Your task to perform on an android device: see creations saved in the google photos Image 0: 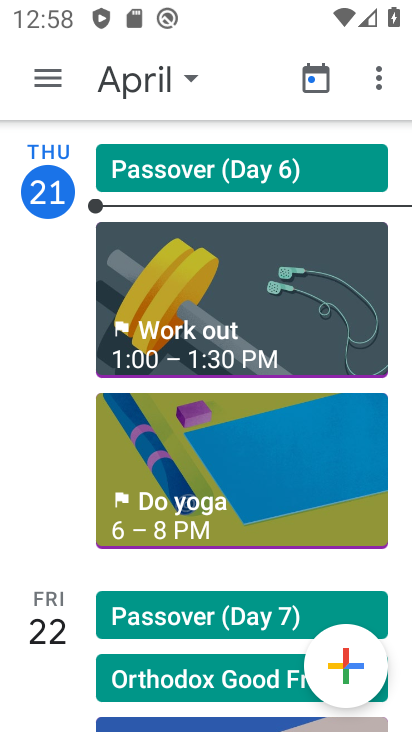
Step 0: press home button
Your task to perform on an android device: see creations saved in the google photos Image 1: 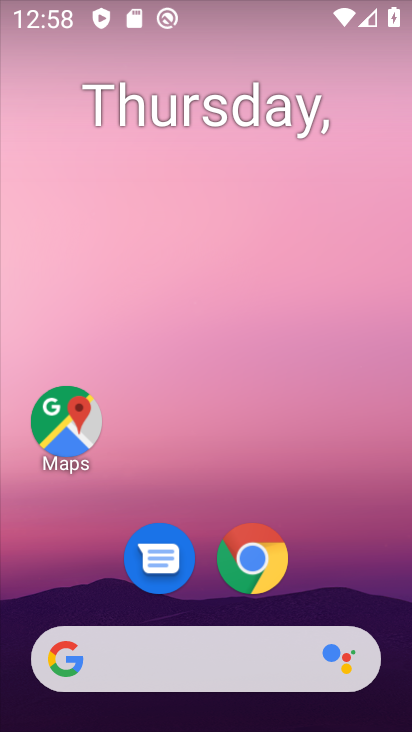
Step 1: drag from (356, 536) to (312, 218)
Your task to perform on an android device: see creations saved in the google photos Image 2: 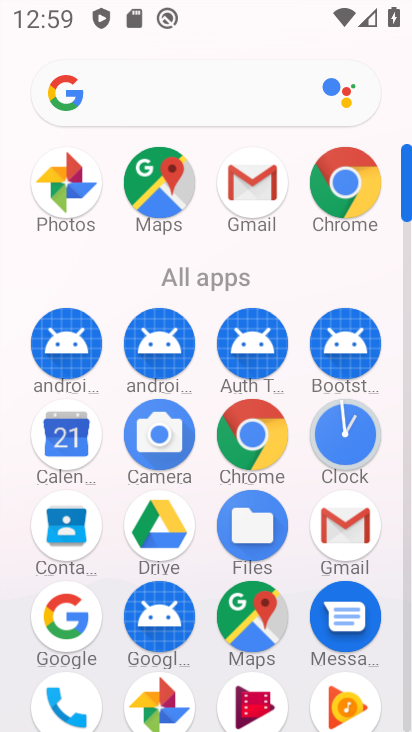
Step 2: click (164, 684)
Your task to perform on an android device: see creations saved in the google photos Image 3: 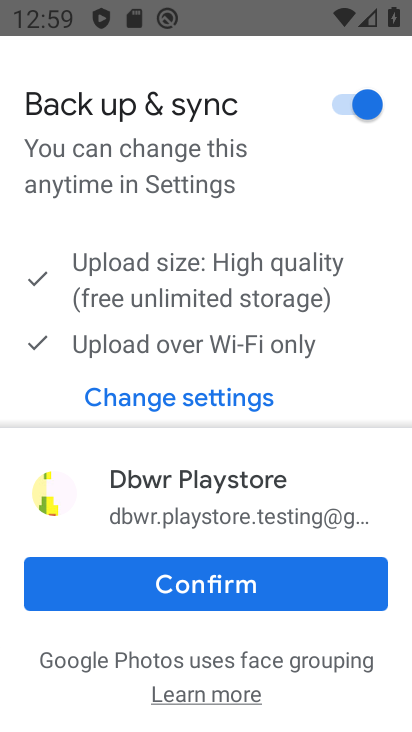
Step 3: click (216, 577)
Your task to perform on an android device: see creations saved in the google photos Image 4: 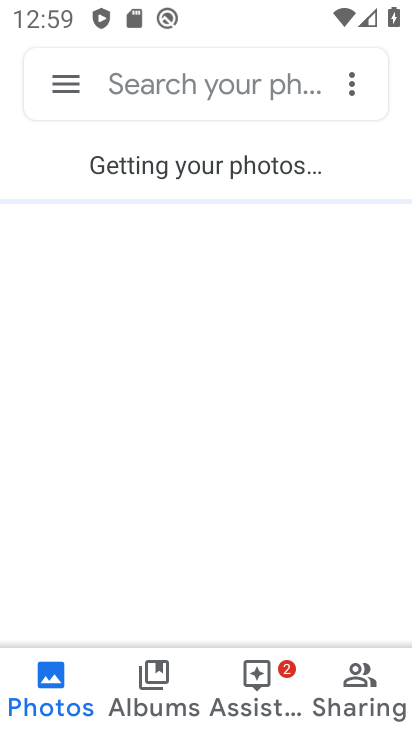
Step 4: click (69, 86)
Your task to perform on an android device: see creations saved in the google photos Image 5: 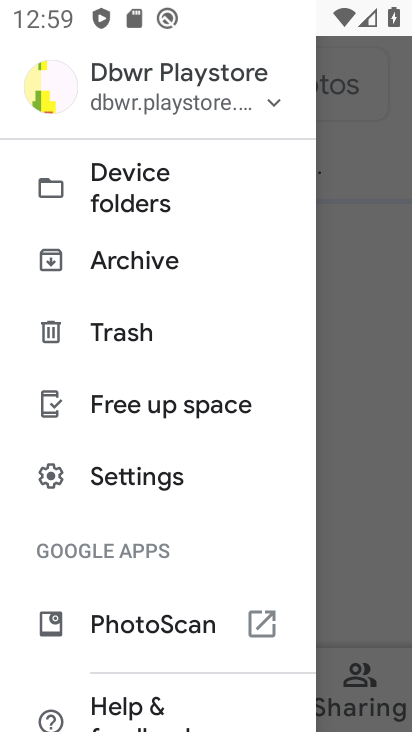
Step 5: click (393, 214)
Your task to perform on an android device: see creations saved in the google photos Image 6: 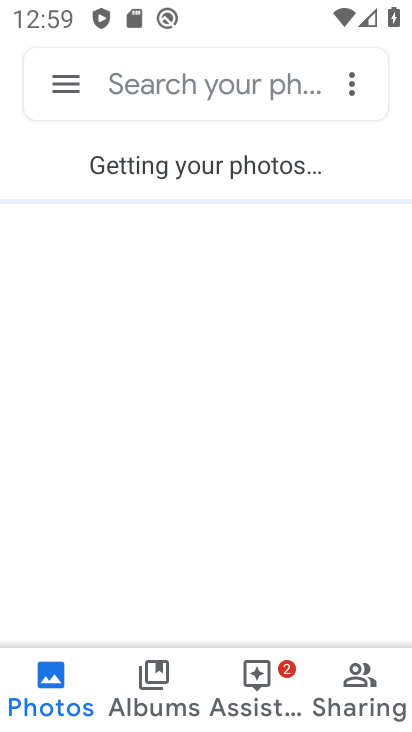
Step 6: click (305, 85)
Your task to perform on an android device: see creations saved in the google photos Image 7: 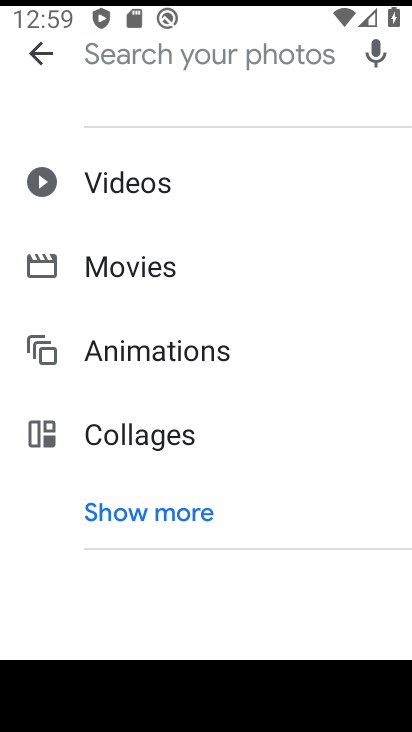
Step 7: click (106, 507)
Your task to perform on an android device: see creations saved in the google photos Image 8: 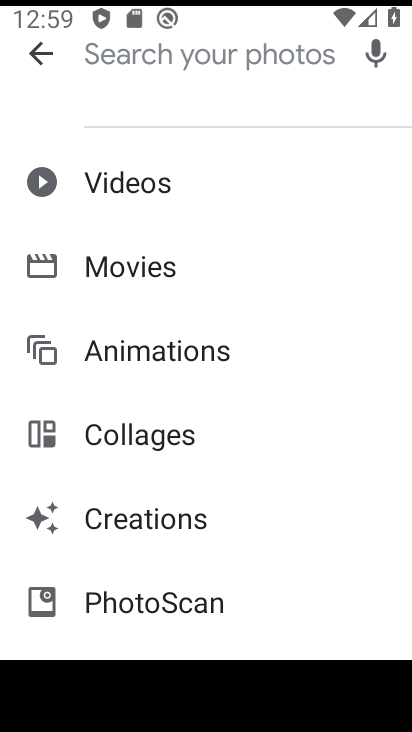
Step 8: click (116, 512)
Your task to perform on an android device: see creations saved in the google photos Image 9: 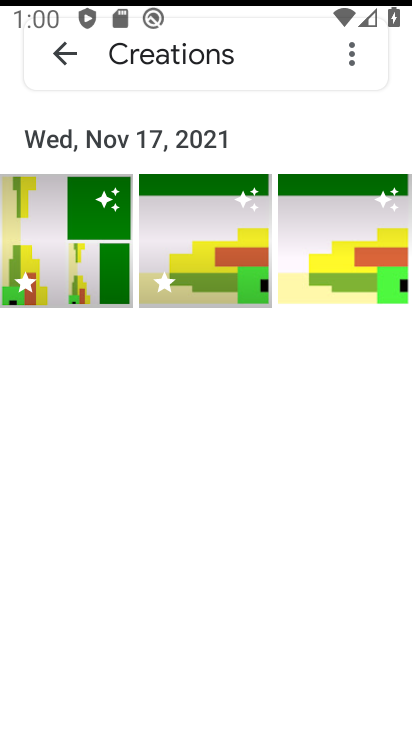
Step 9: task complete